Your task to perform on an android device: Show me popular videos on Youtube Image 0: 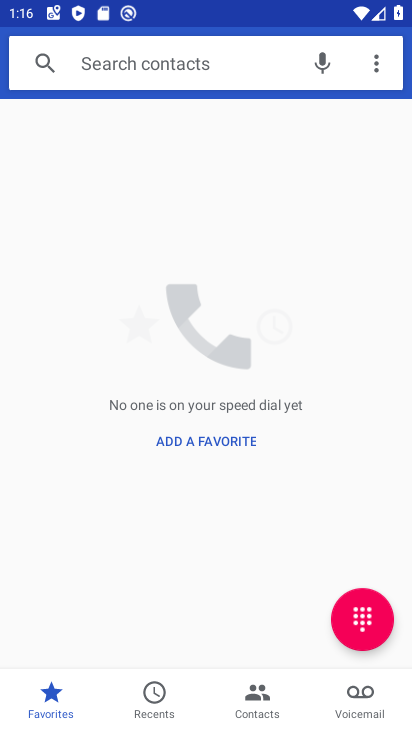
Step 0: press home button
Your task to perform on an android device: Show me popular videos on Youtube Image 1: 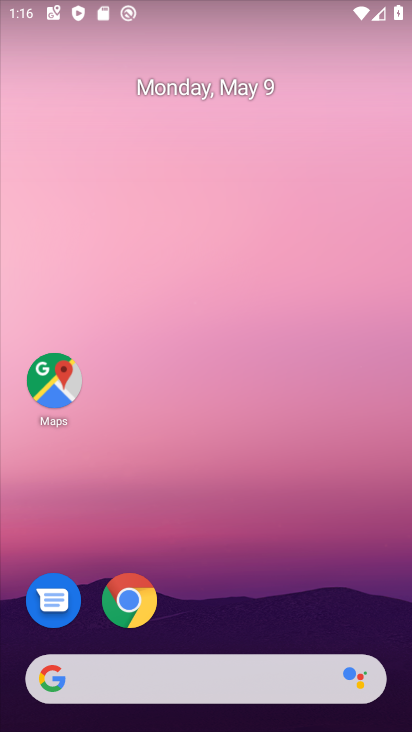
Step 1: drag from (221, 616) to (403, 703)
Your task to perform on an android device: Show me popular videos on Youtube Image 2: 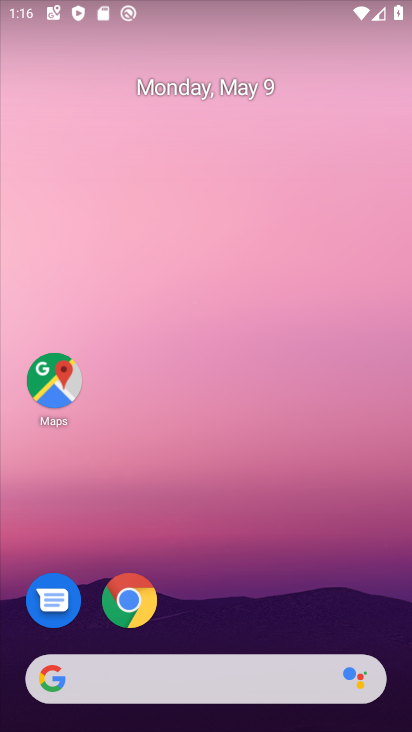
Step 2: drag from (195, 604) to (149, 77)
Your task to perform on an android device: Show me popular videos on Youtube Image 3: 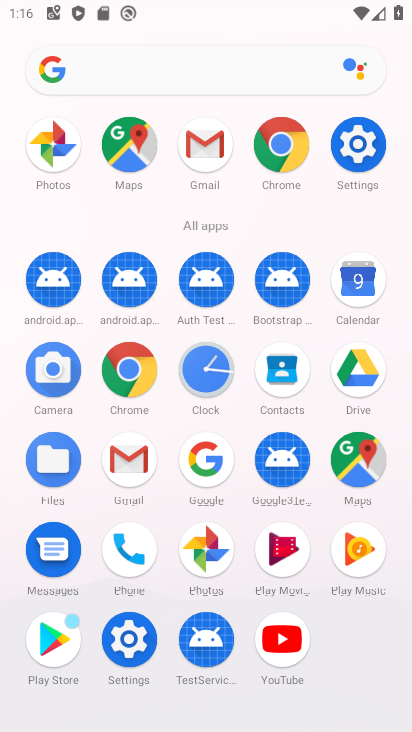
Step 3: click (263, 650)
Your task to perform on an android device: Show me popular videos on Youtube Image 4: 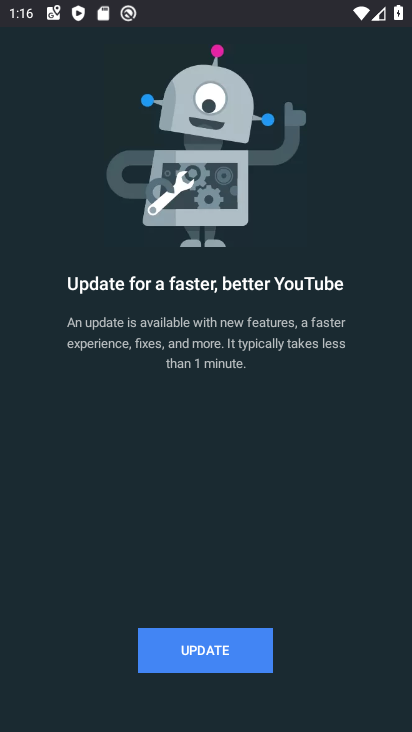
Step 4: click (220, 650)
Your task to perform on an android device: Show me popular videos on Youtube Image 5: 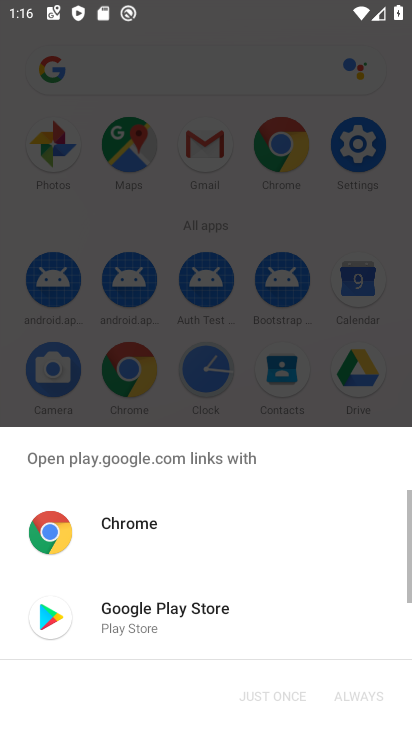
Step 5: click (220, 650)
Your task to perform on an android device: Show me popular videos on Youtube Image 6: 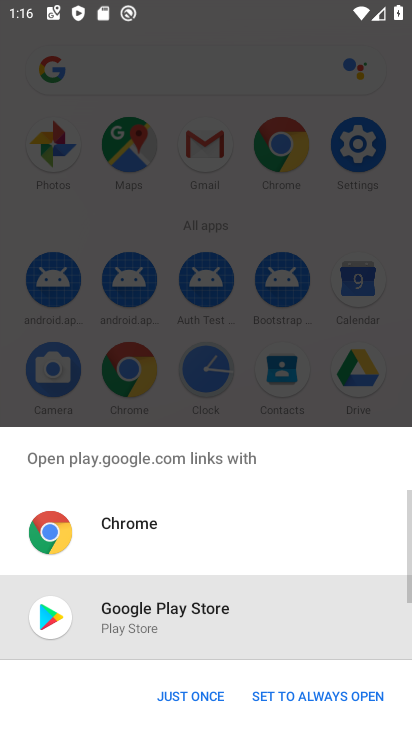
Step 6: click (192, 687)
Your task to perform on an android device: Show me popular videos on Youtube Image 7: 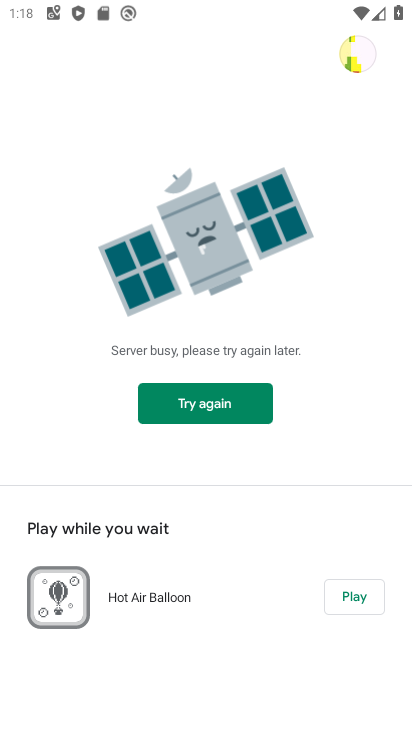
Step 7: task complete